Your task to perform on an android device: show emergency info Image 0: 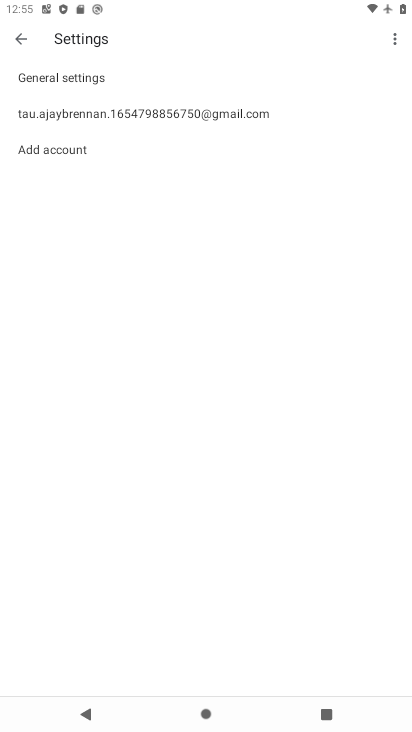
Step 0: press home button
Your task to perform on an android device: show emergency info Image 1: 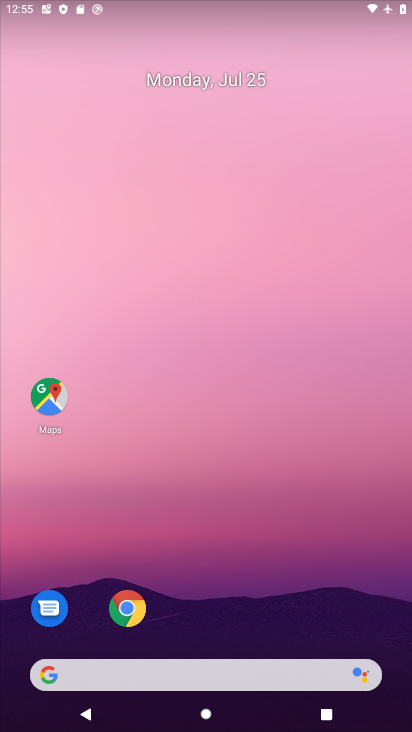
Step 1: drag from (255, 634) to (295, 133)
Your task to perform on an android device: show emergency info Image 2: 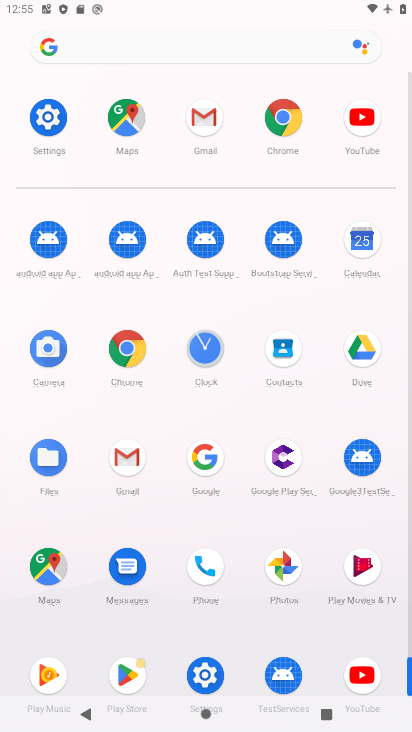
Step 2: click (46, 136)
Your task to perform on an android device: show emergency info Image 3: 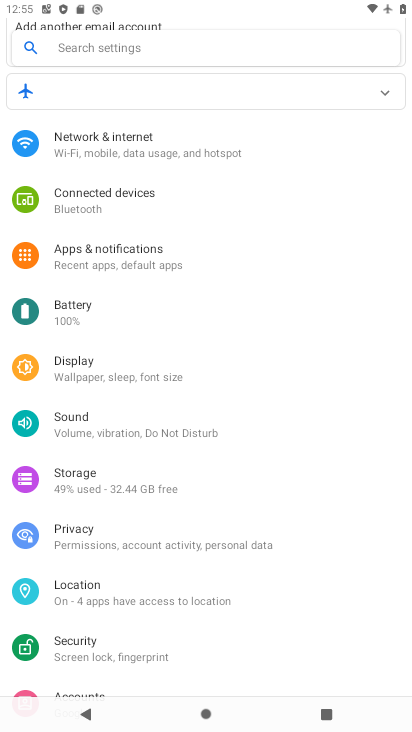
Step 3: drag from (164, 483) to (209, 133)
Your task to perform on an android device: show emergency info Image 4: 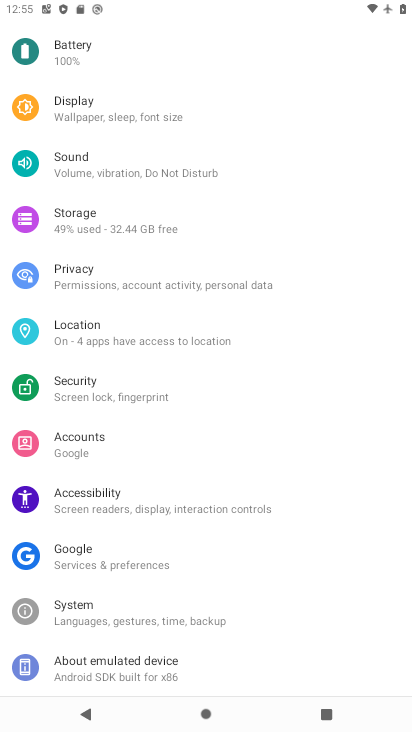
Step 4: click (146, 664)
Your task to perform on an android device: show emergency info Image 5: 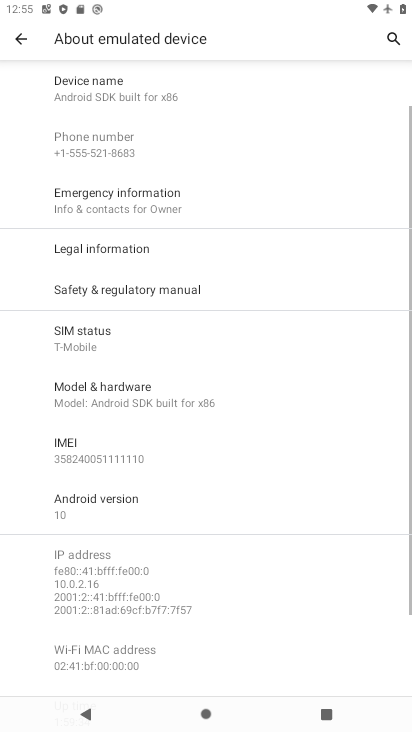
Step 5: click (132, 503)
Your task to perform on an android device: show emergency info Image 6: 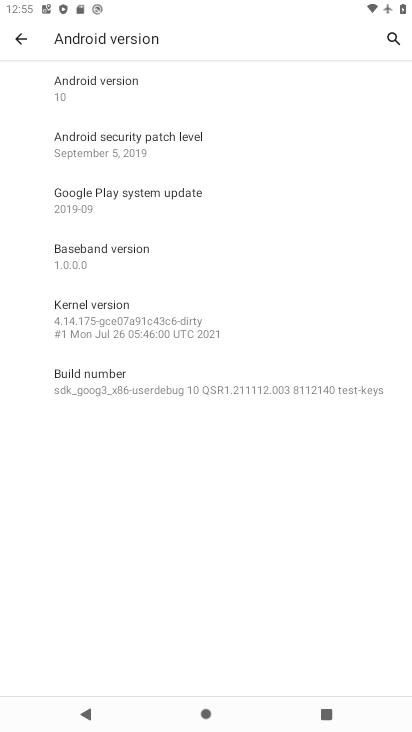
Step 6: click (25, 40)
Your task to perform on an android device: show emergency info Image 7: 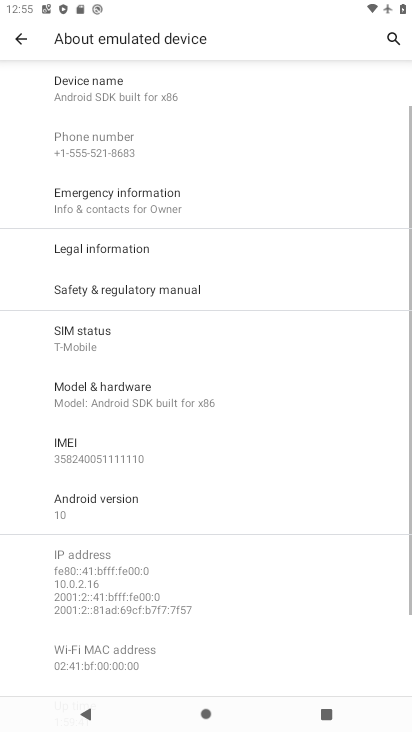
Step 7: click (146, 202)
Your task to perform on an android device: show emergency info Image 8: 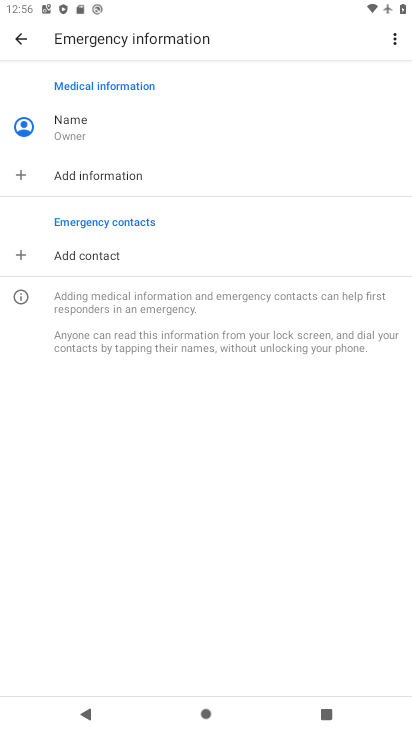
Step 8: task complete